Your task to perform on an android device: turn pop-ups on in chrome Image 0: 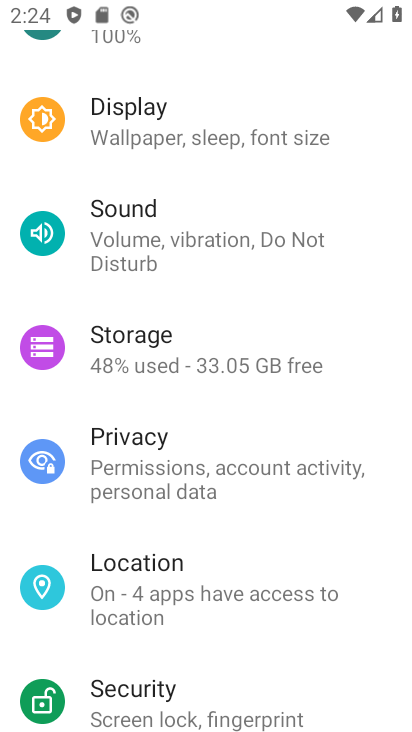
Step 0: press home button
Your task to perform on an android device: turn pop-ups on in chrome Image 1: 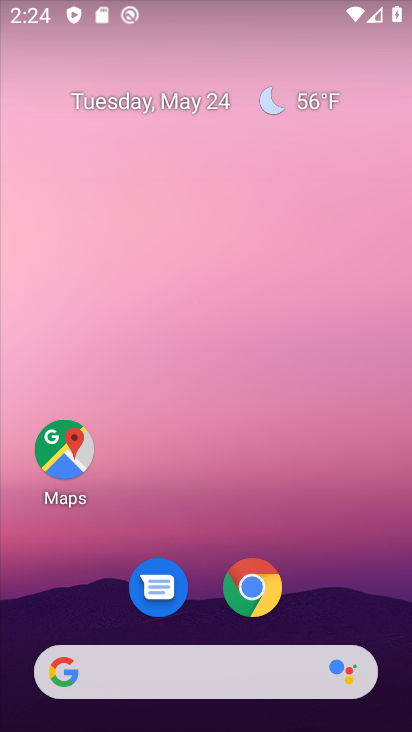
Step 1: click (255, 576)
Your task to perform on an android device: turn pop-ups on in chrome Image 2: 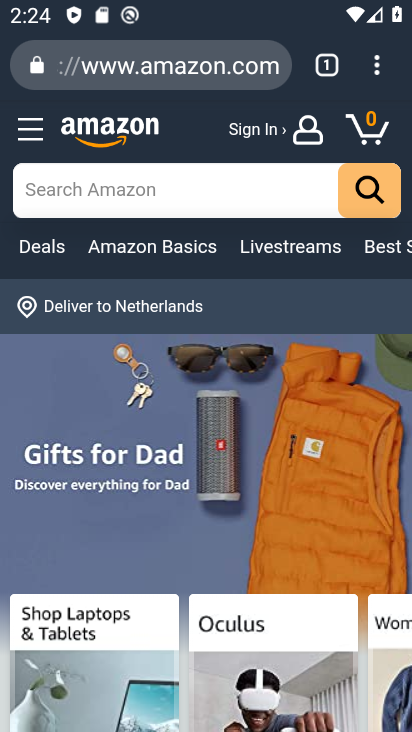
Step 2: click (388, 60)
Your task to perform on an android device: turn pop-ups on in chrome Image 3: 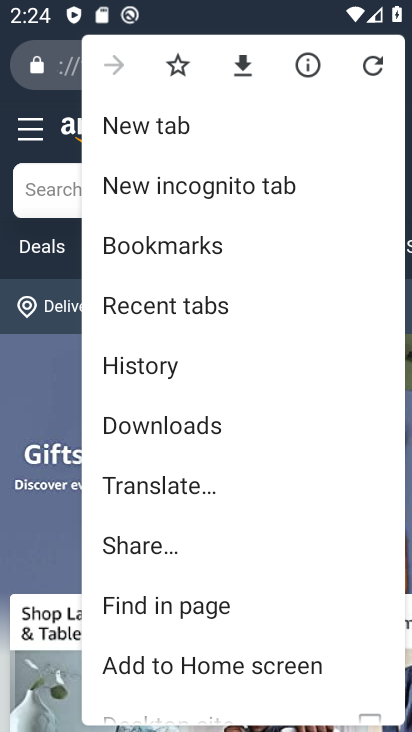
Step 3: drag from (314, 625) to (342, 215)
Your task to perform on an android device: turn pop-ups on in chrome Image 4: 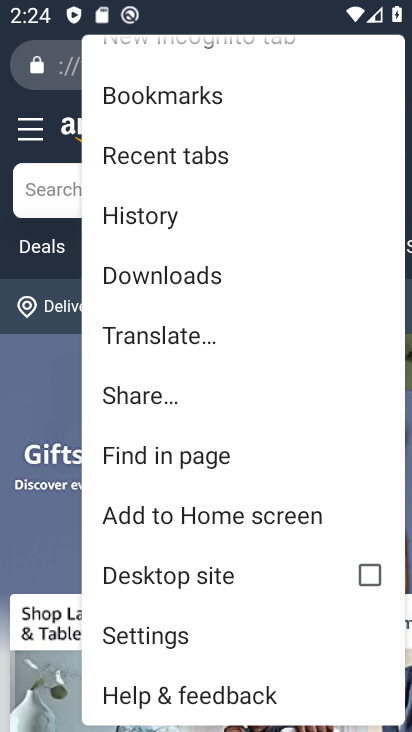
Step 4: click (176, 639)
Your task to perform on an android device: turn pop-ups on in chrome Image 5: 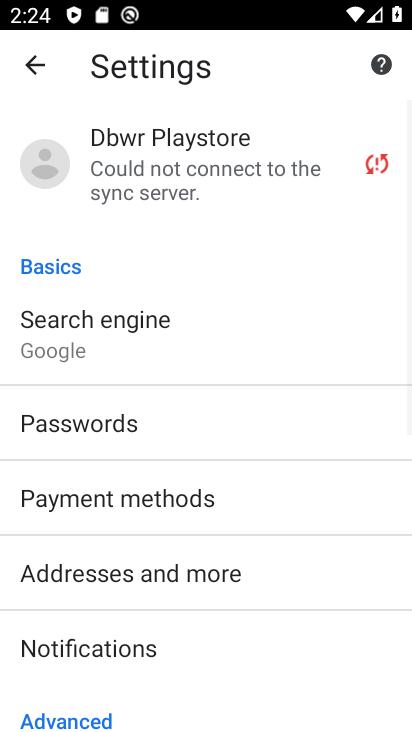
Step 5: drag from (190, 622) to (209, 176)
Your task to perform on an android device: turn pop-ups on in chrome Image 6: 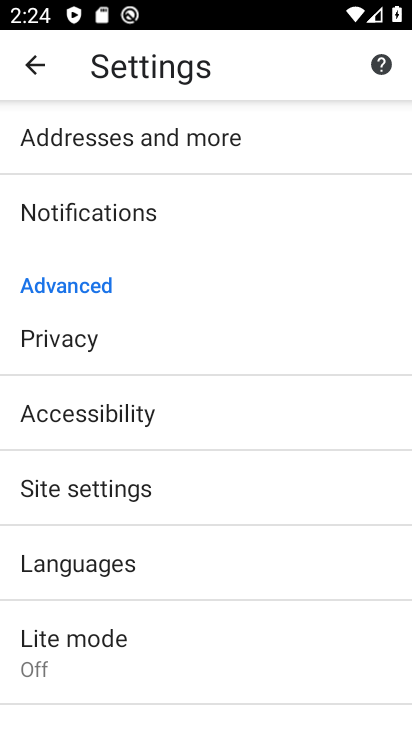
Step 6: click (220, 469)
Your task to perform on an android device: turn pop-ups on in chrome Image 7: 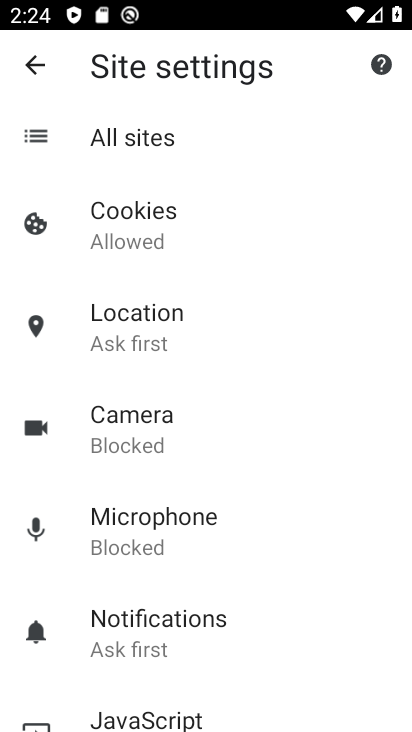
Step 7: drag from (136, 649) to (255, 183)
Your task to perform on an android device: turn pop-ups on in chrome Image 8: 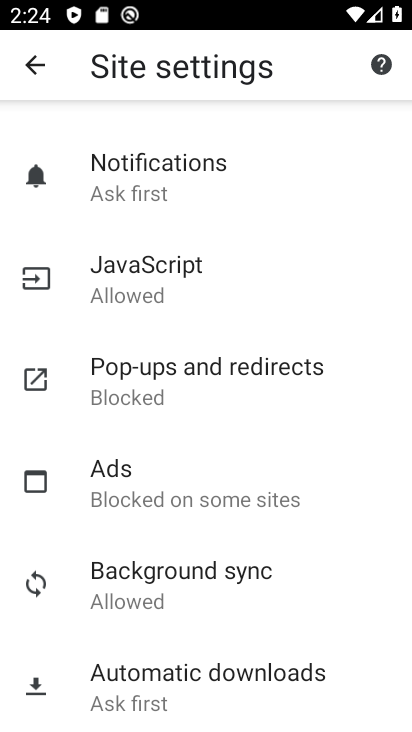
Step 8: click (172, 403)
Your task to perform on an android device: turn pop-ups on in chrome Image 9: 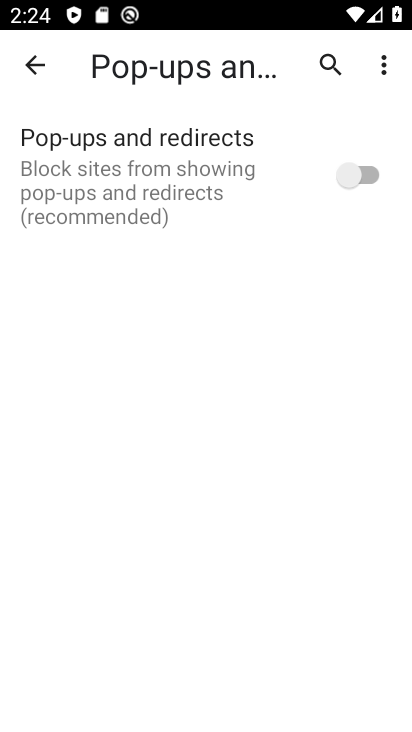
Step 9: click (364, 174)
Your task to perform on an android device: turn pop-ups on in chrome Image 10: 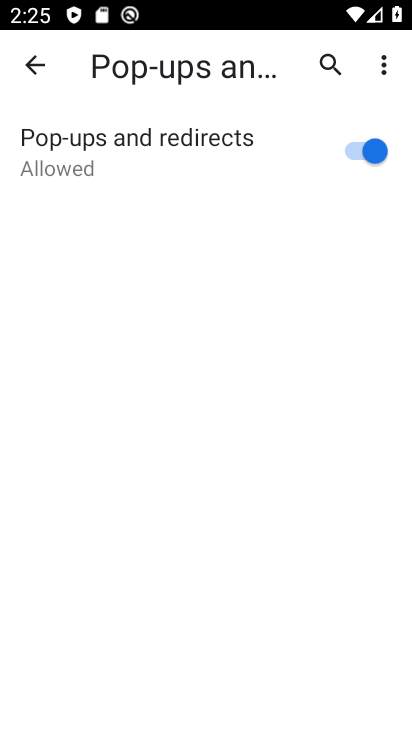
Step 10: task complete